Your task to perform on an android device: turn on airplane mode Image 0: 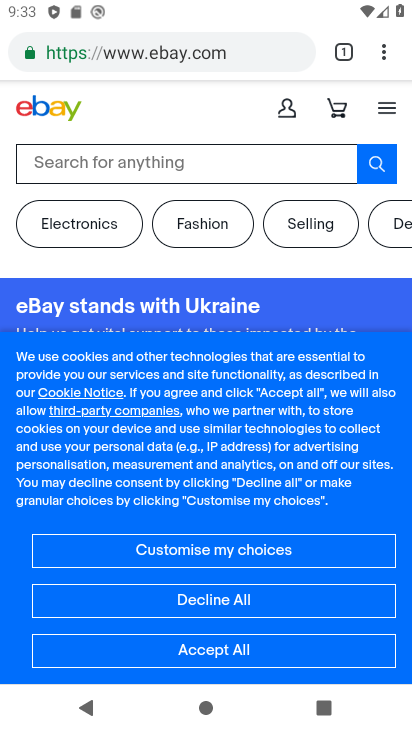
Step 0: press home button
Your task to perform on an android device: turn on airplane mode Image 1: 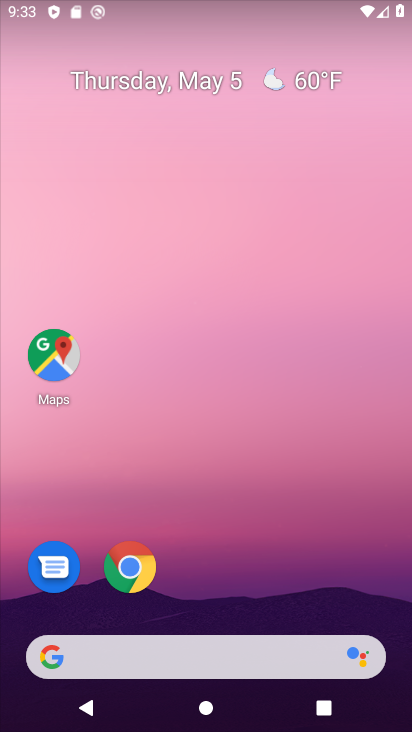
Step 1: drag from (230, 586) to (233, 154)
Your task to perform on an android device: turn on airplane mode Image 2: 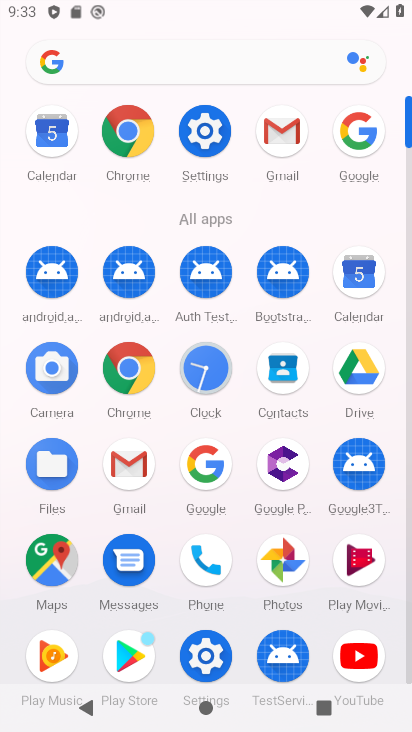
Step 2: click (196, 139)
Your task to perform on an android device: turn on airplane mode Image 3: 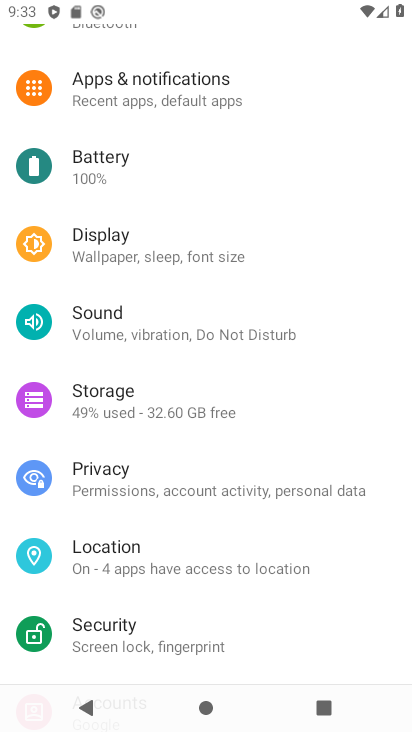
Step 3: drag from (196, 139) to (236, 535)
Your task to perform on an android device: turn on airplane mode Image 4: 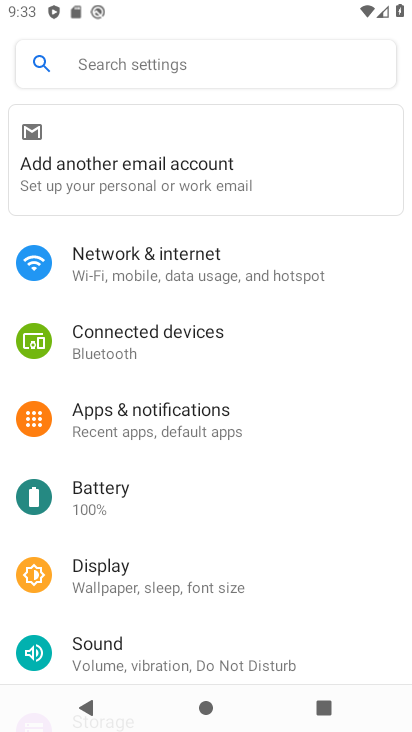
Step 4: click (203, 265)
Your task to perform on an android device: turn on airplane mode Image 5: 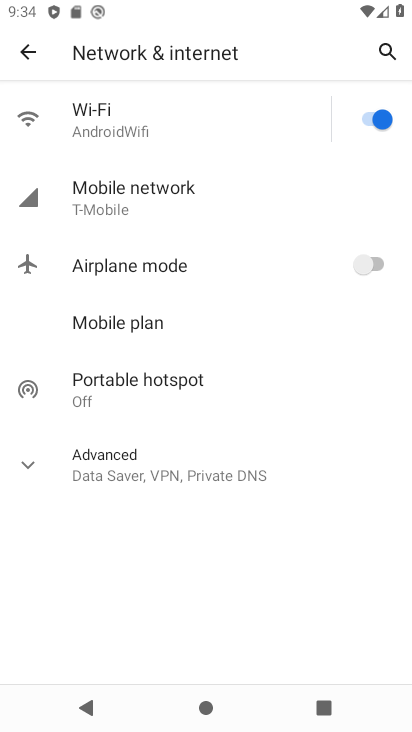
Step 5: click (371, 262)
Your task to perform on an android device: turn on airplane mode Image 6: 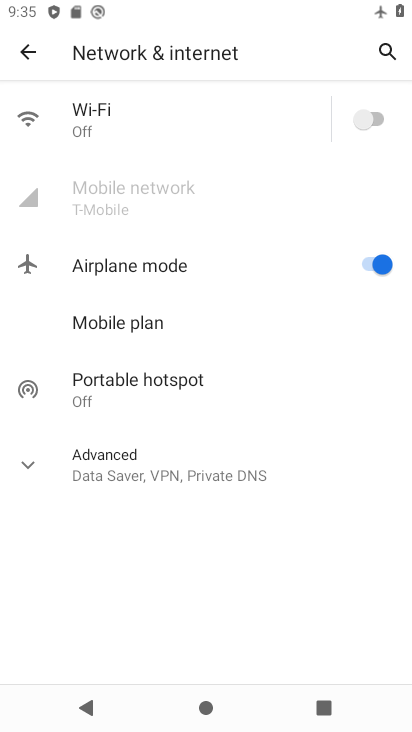
Step 6: task complete